Your task to perform on an android device: clear history in the chrome app Image 0: 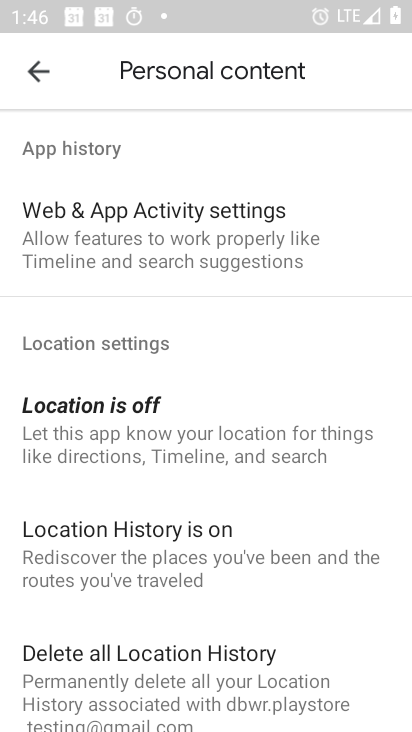
Step 0: press home button
Your task to perform on an android device: clear history in the chrome app Image 1: 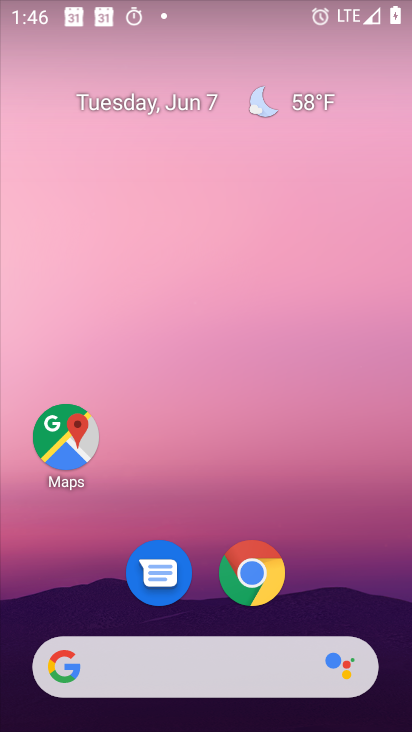
Step 1: click (261, 562)
Your task to perform on an android device: clear history in the chrome app Image 2: 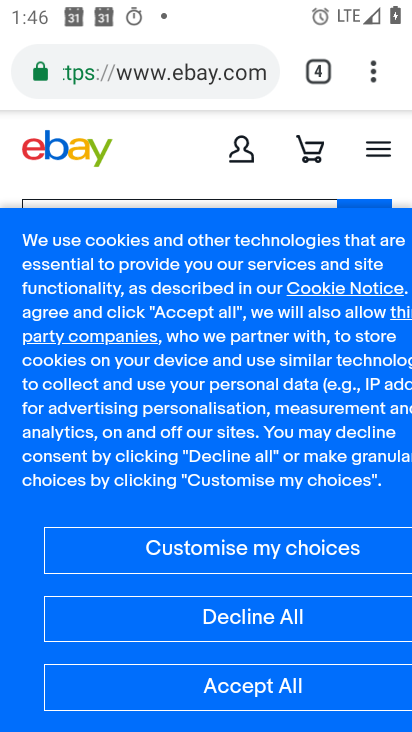
Step 2: drag from (377, 75) to (151, 410)
Your task to perform on an android device: clear history in the chrome app Image 3: 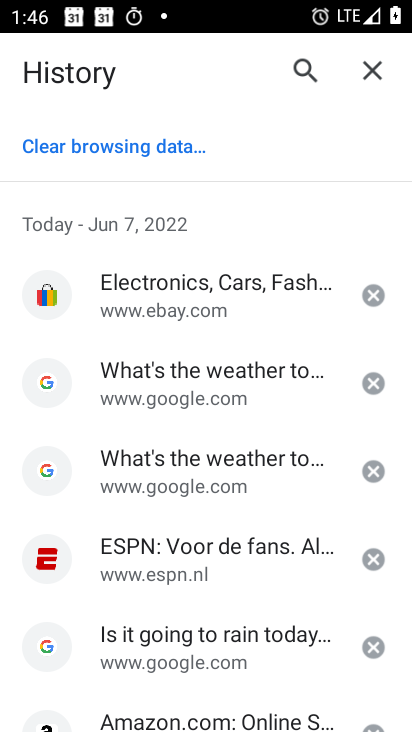
Step 3: click (96, 289)
Your task to perform on an android device: clear history in the chrome app Image 4: 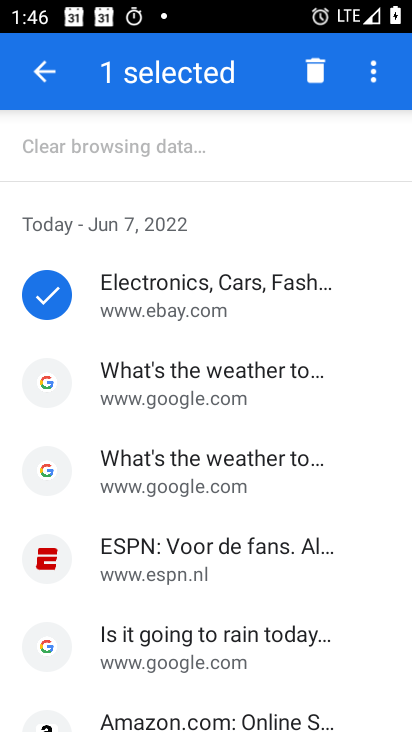
Step 4: click (42, 388)
Your task to perform on an android device: clear history in the chrome app Image 5: 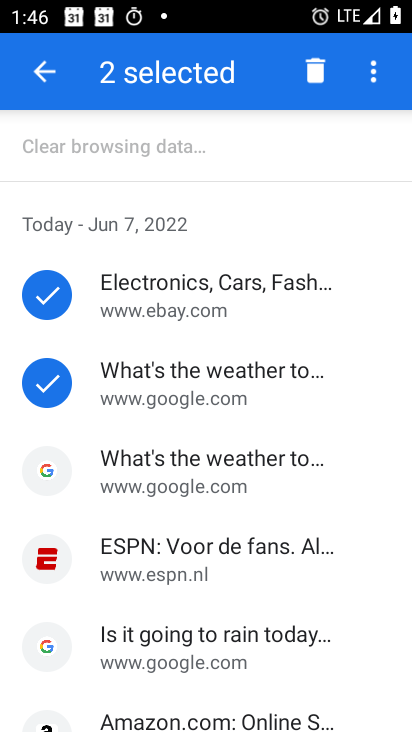
Step 5: click (46, 475)
Your task to perform on an android device: clear history in the chrome app Image 6: 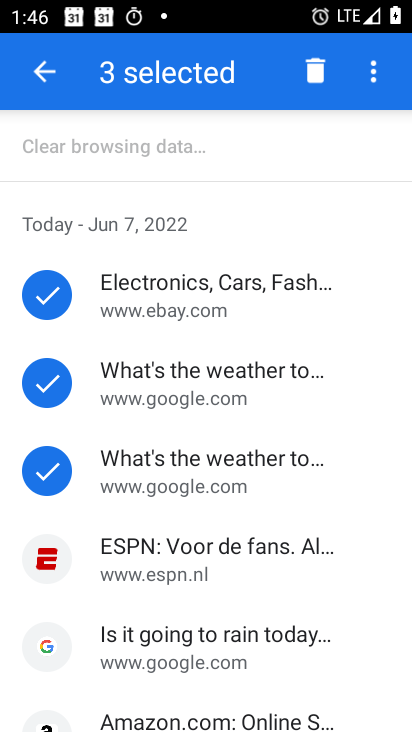
Step 6: click (42, 550)
Your task to perform on an android device: clear history in the chrome app Image 7: 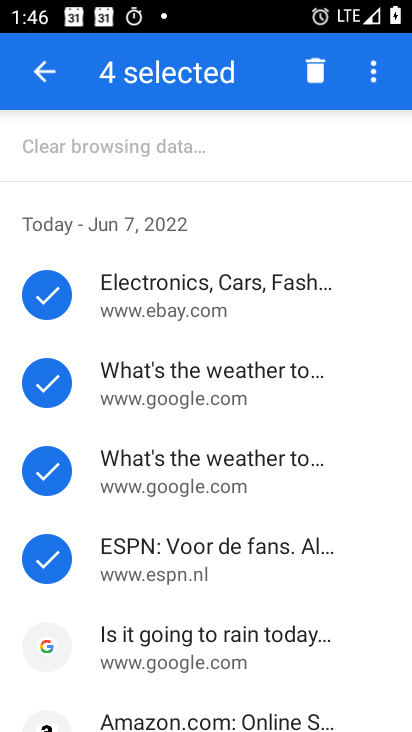
Step 7: click (51, 648)
Your task to perform on an android device: clear history in the chrome app Image 8: 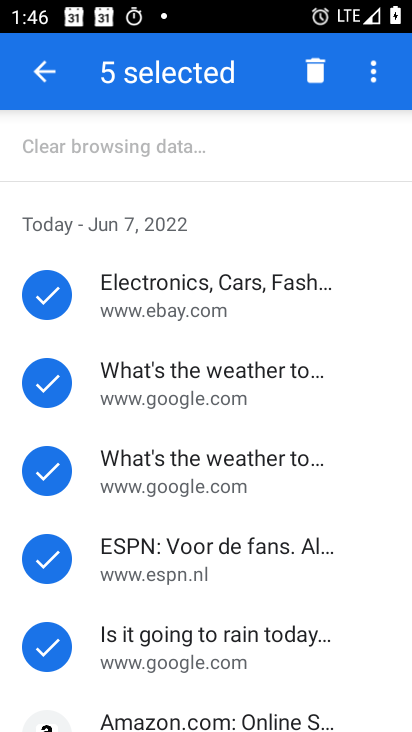
Step 8: drag from (165, 675) to (198, 185)
Your task to perform on an android device: clear history in the chrome app Image 9: 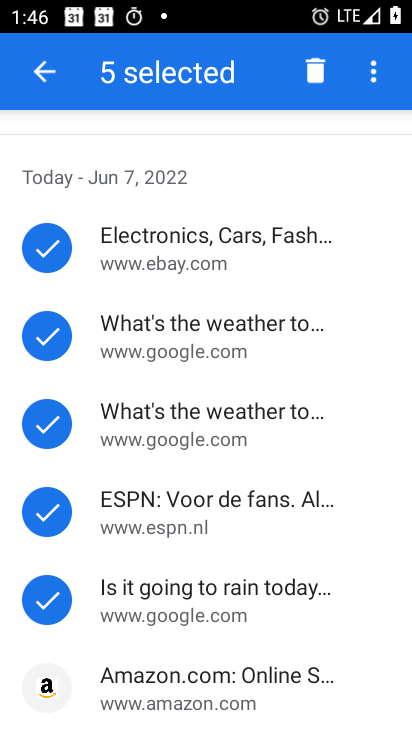
Step 9: click (41, 688)
Your task to perform on an android device: clear history in the chrome app Image 10: 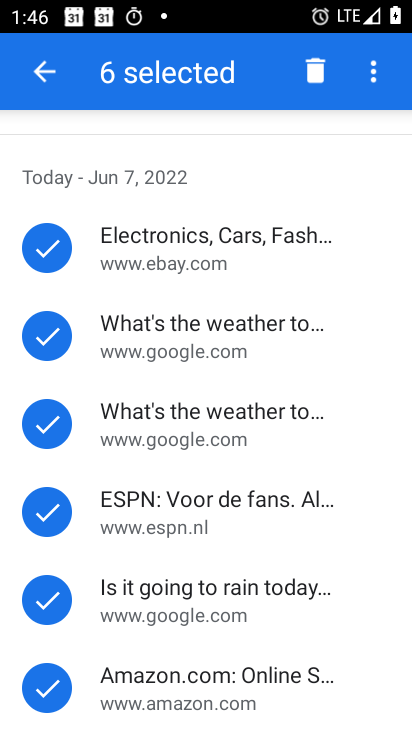
Step 10: click (312, 69)
Your task to perform on an android device: clear history in the chrome app Image 11: 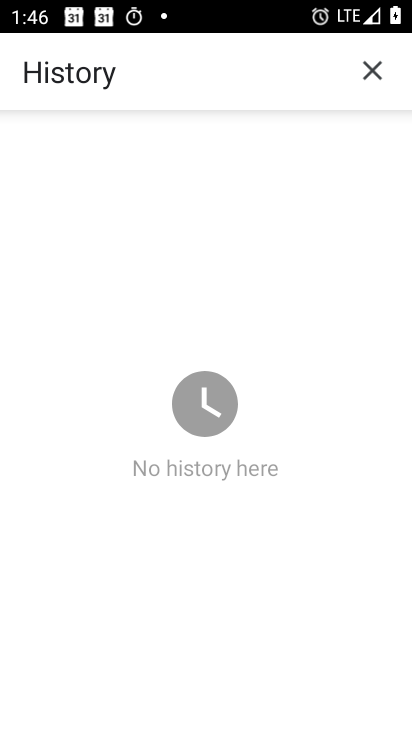
Step 11: task complete